Your task to perform on an android device: turn vacation reply on in the gmail app Image 0: 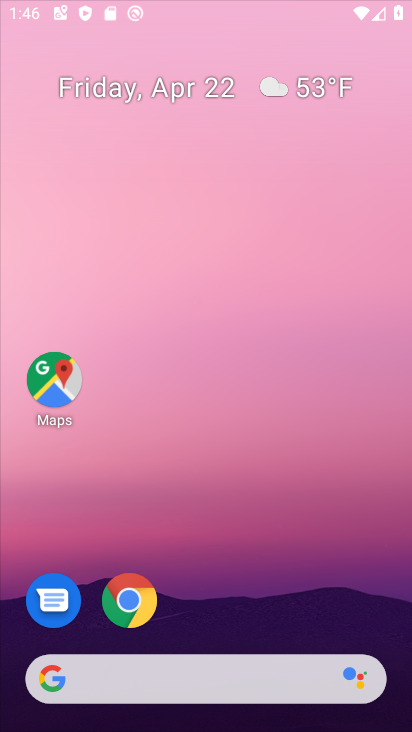
Step 0: drag from (1, 307) to (392, 334)
Your task to perform on an android device: turn vacation reply on in the gmail app Image 1: 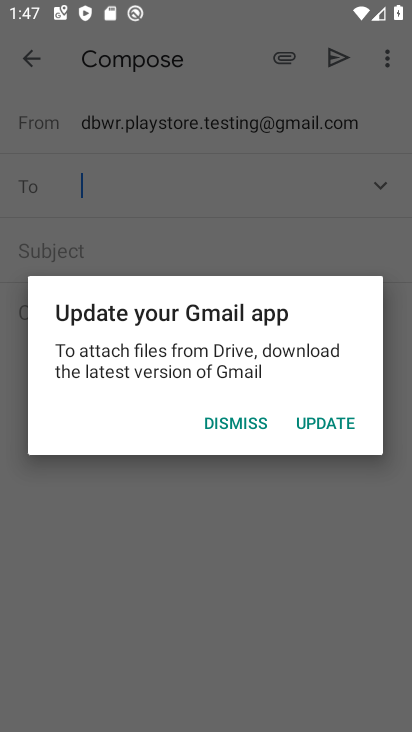
Step 1: press home button
Your task to perform on an android device: turn vacation reply on in the gmail app Image 2: 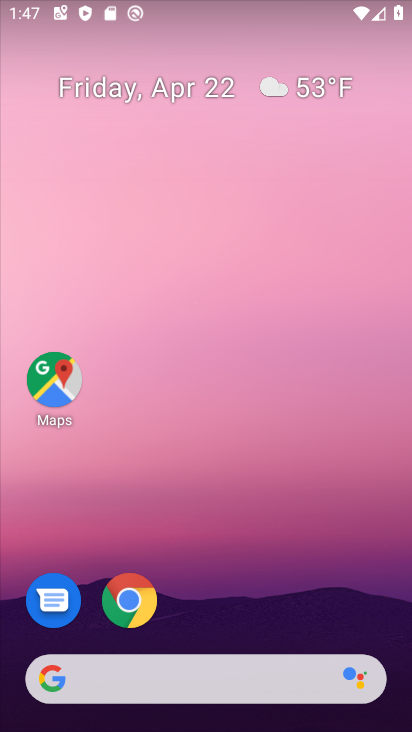
Step 2: drag from (199, 726) to (187, 223)
Your task to perform on an android device: turn vacation reply on in the gmail app Image 3: 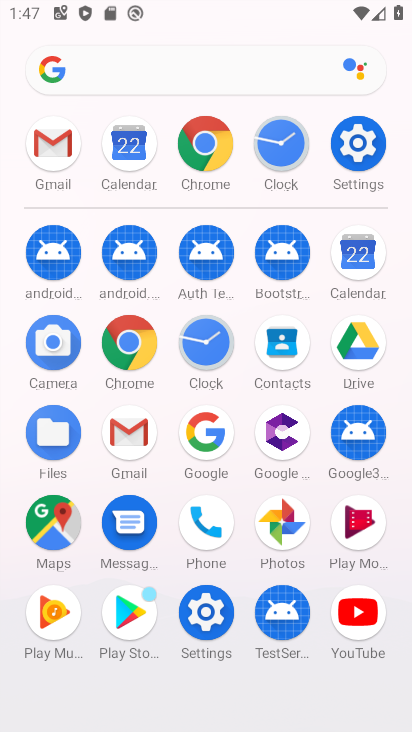
Step 3: click (130, 438)
Your task to perform on an android device: turn vacation reply on in the gmail app Image 4: 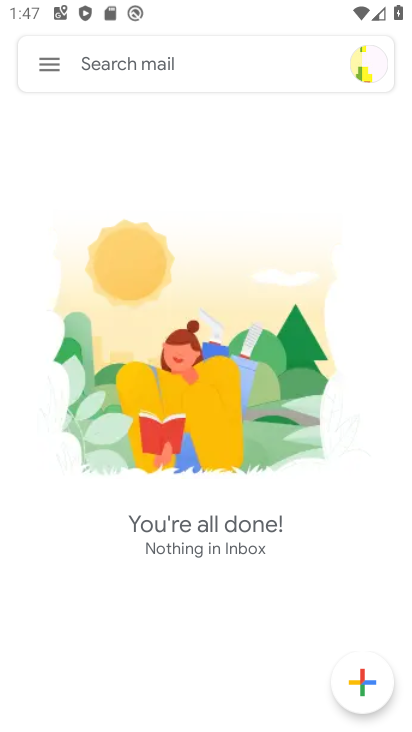
Step 4: click (50, 68)
Your task to perform on an android device: turn vacation reply on in the gmail app Image 5: 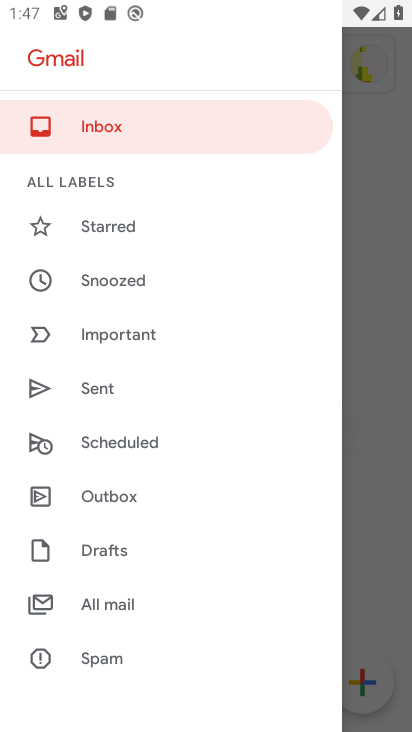
Step 5: drag from (144, 630) to (136, 149)
Your task to perform on an android device: turn vacation reply on in the gmail app Image 6: 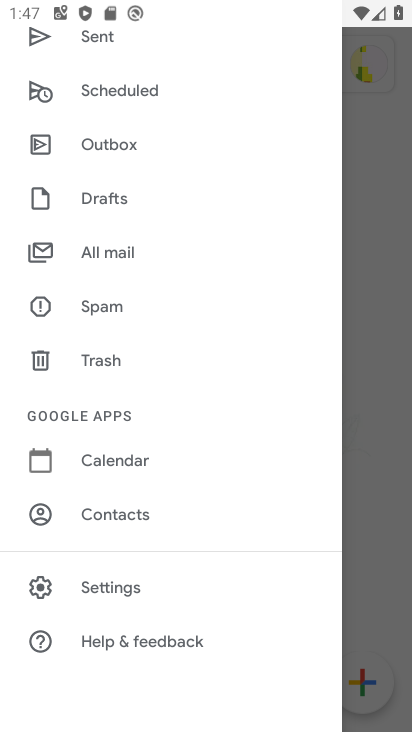
Step 6: click (105, 581)
Your task to perform on an android device: turn vacation reply on in the gmail app Image 7: 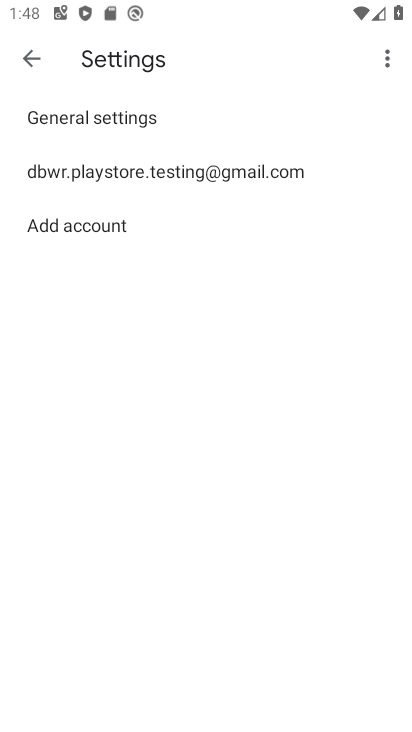
Step 7: click (166, 170)
Your task to perform on an android device: turn vacation reply on in the gmail app Image 8: 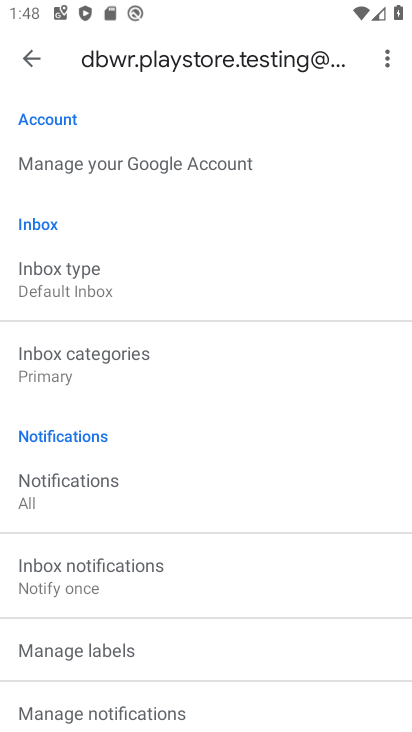
Step 8: drag from (176, 694) to (175, 229)
Your task to perform on an android device: turn vacation reply on in the gmail app Image 9: 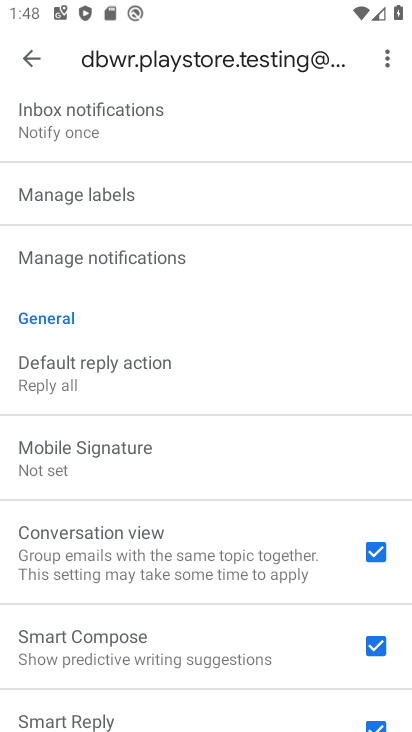
Step 9: drag from (180, 692) to (183, 345)
Your task to perform on an android device: turn vacation reply on in the gmail app Image 10: 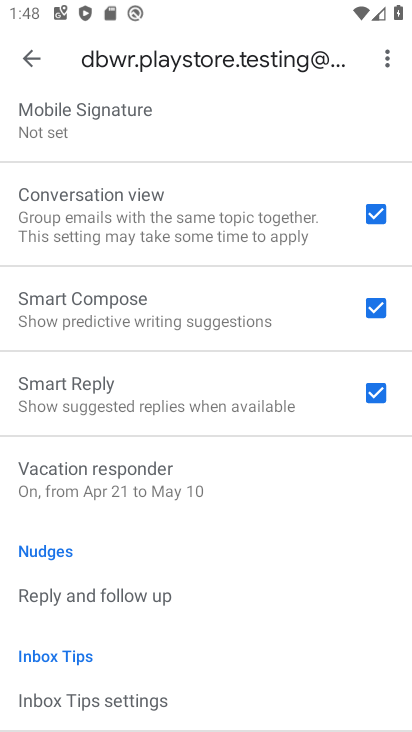
Step 10: drag from (204, 680) to (208, 210)
Your task to perform on an android device: turn vacation reply on in the gmail app Image 11: 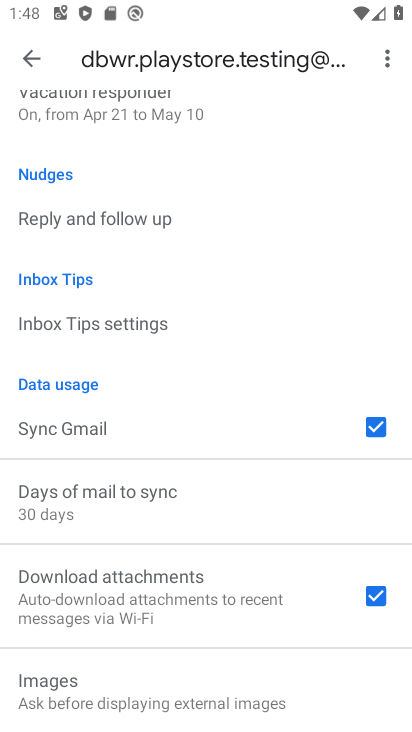
Step 11: drag from (209, 651) to (230, 186)
Your task to perform on an android device: turn vacation reply on in the gmail app Image 12: 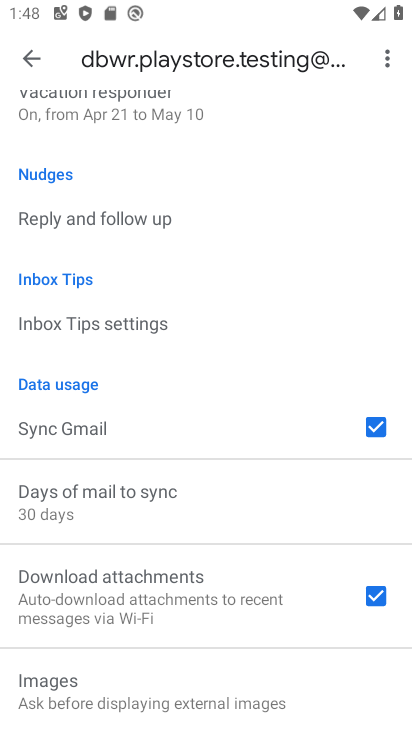
Step 12: drag from (229, 150) to (247, 354)
Your task to perform on an android device: turn vacation reply on in the gmail app Image 13: 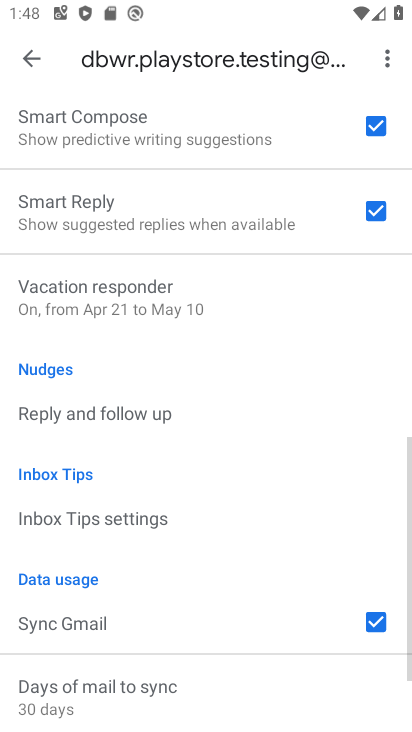
Step 13: click (100, 286)
Your task to perform on an android device: turn vacation reply on in the gmail app Image 14: 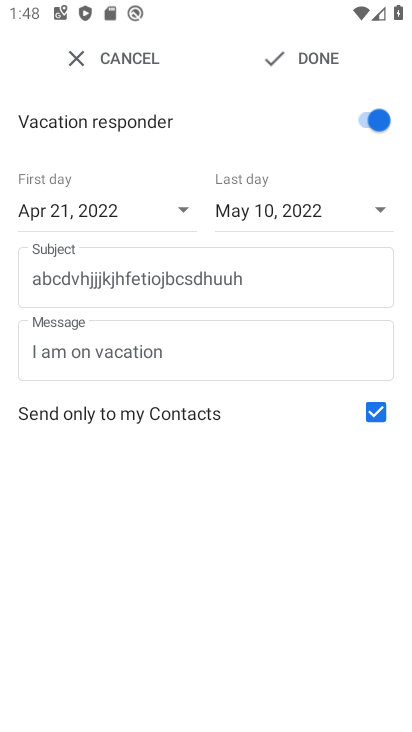
Step 14: task complete